Your task to perform on an android device: Show me the best rated 4K TV on Walmart. Image 0: 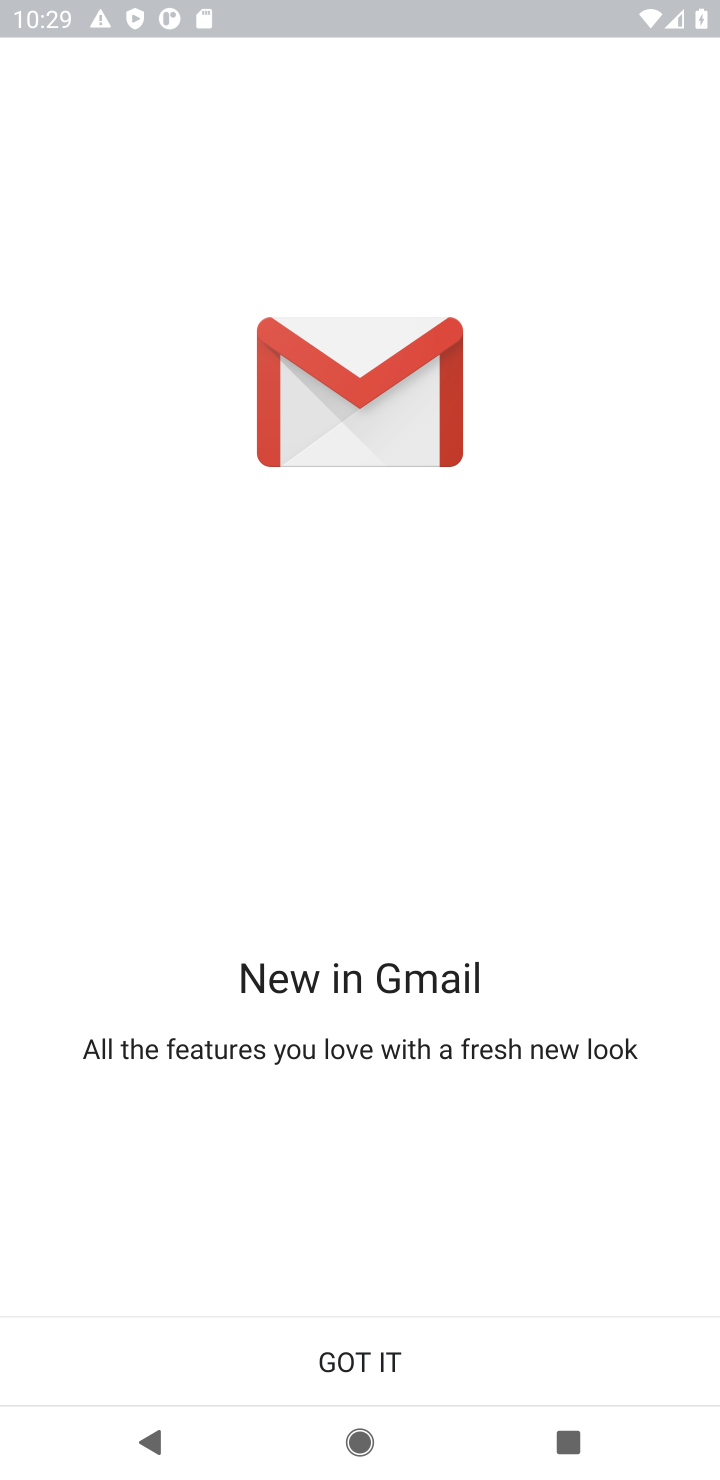
Step 0: press home button
Your task to perform on an android device: Show me the best rated 4K TV on Walmart. Image 1: 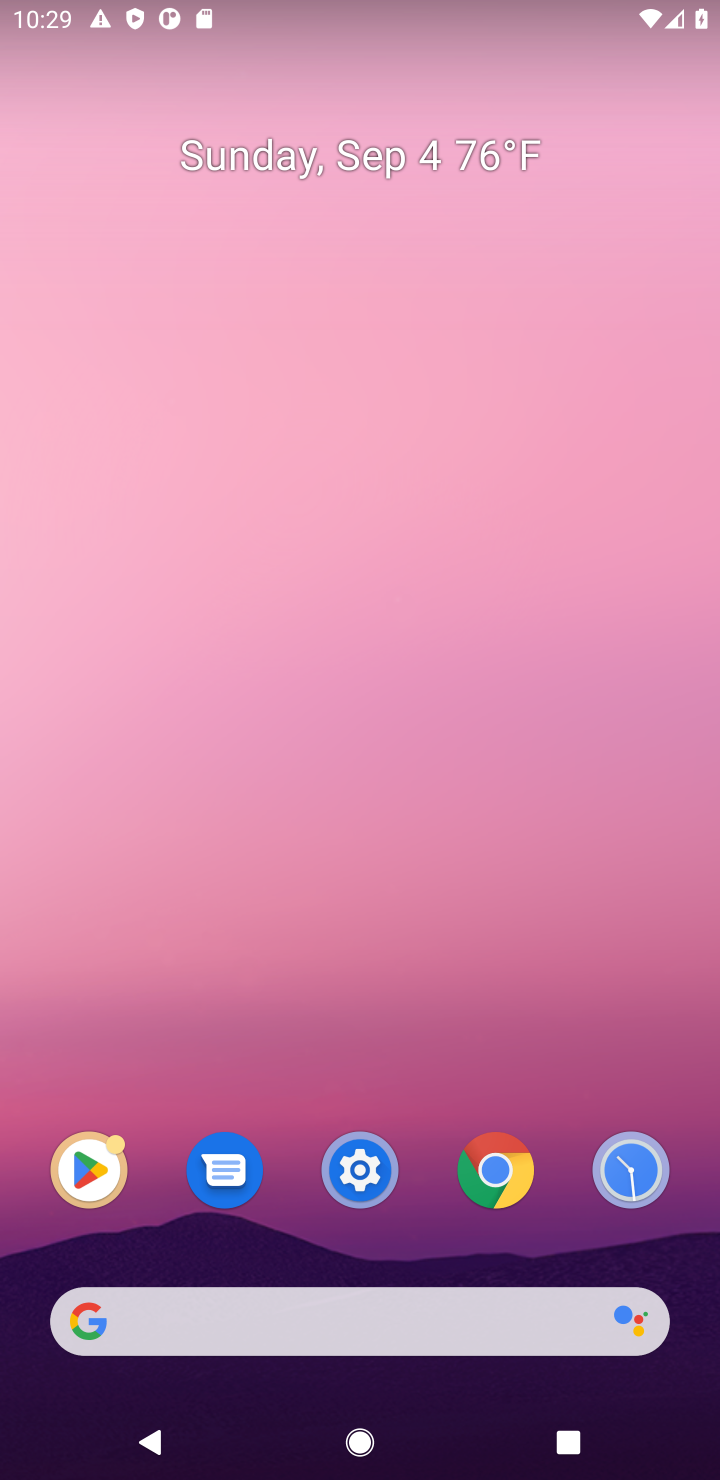
Step 1: click (454, 1329)
Your task to perform on an android device: Show me the best rated 4K TV on Walmart. Image 2: 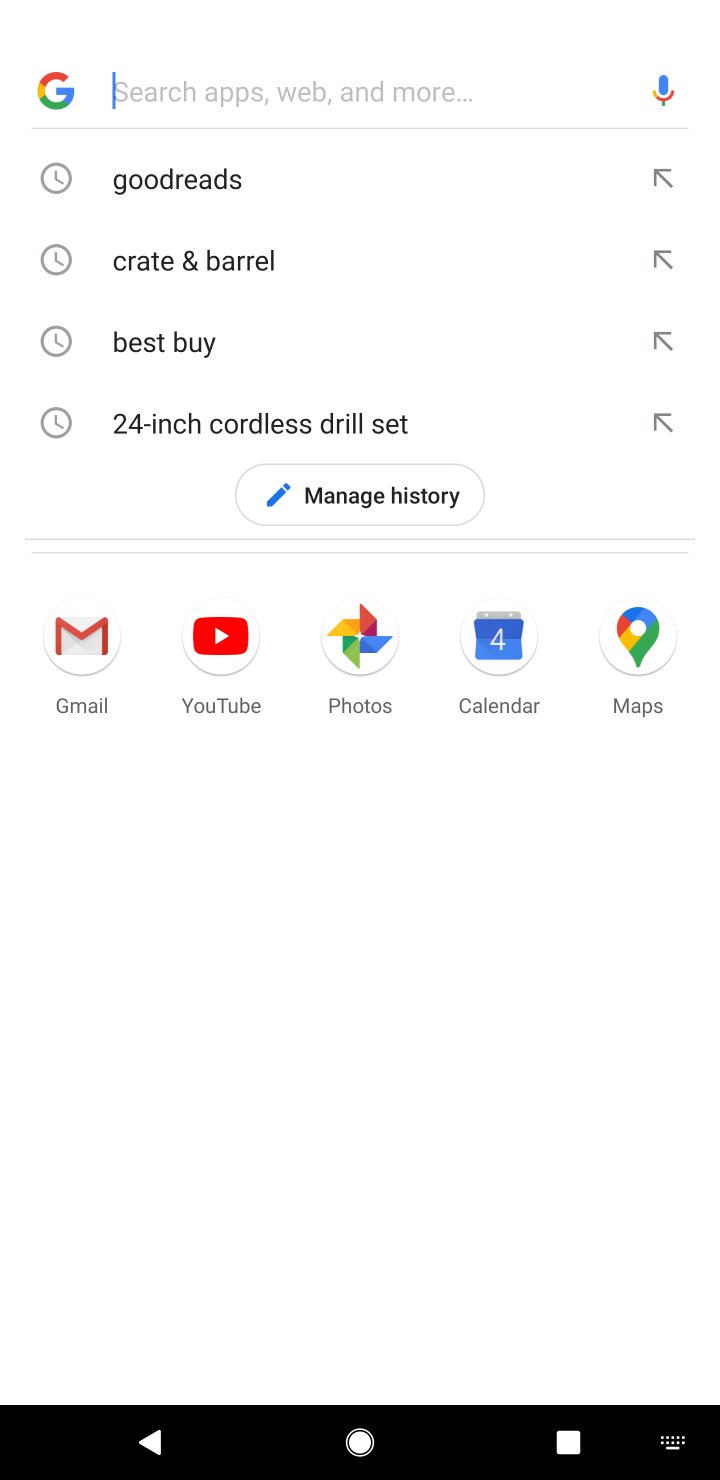
Step 2: type "Walmart"
Your task to perform on an android device: Show me the best rated 4K TV on Walmart. Image 3: 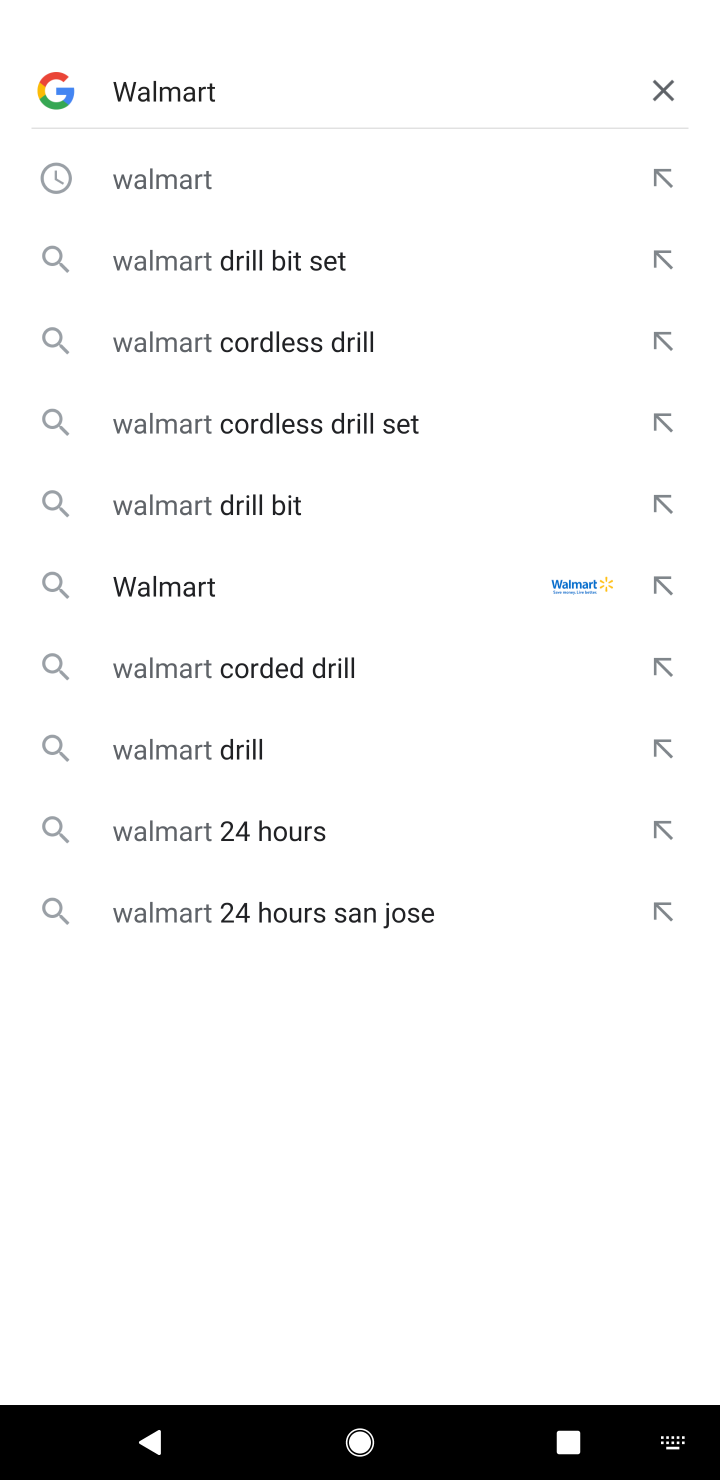
Step 3: type ""
Your task to perform on an android device: Show me the best rated 4K TV on Walmart. Image 4: 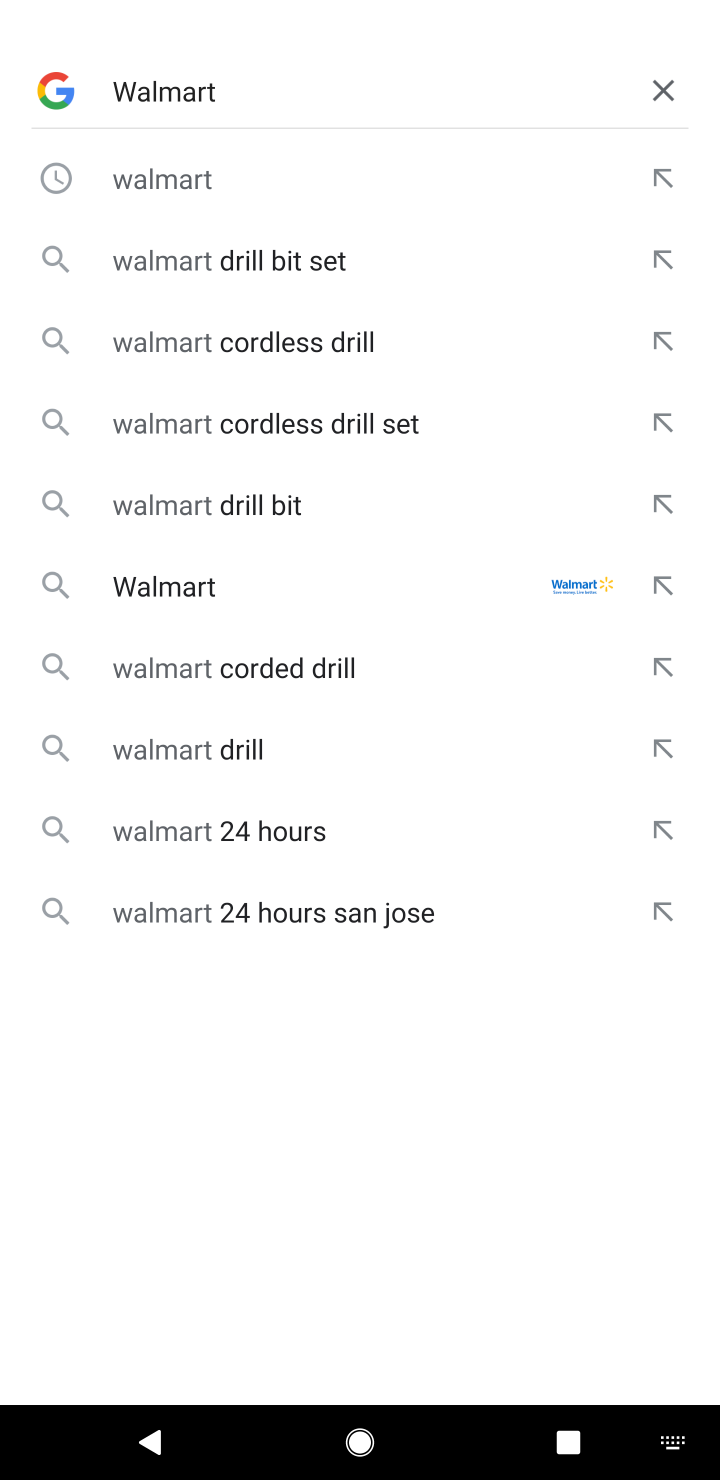
Step 4: click (159, 176)
Your task to perform on an android device: Show me the best rated 4K TV on Walmart. Image 5: 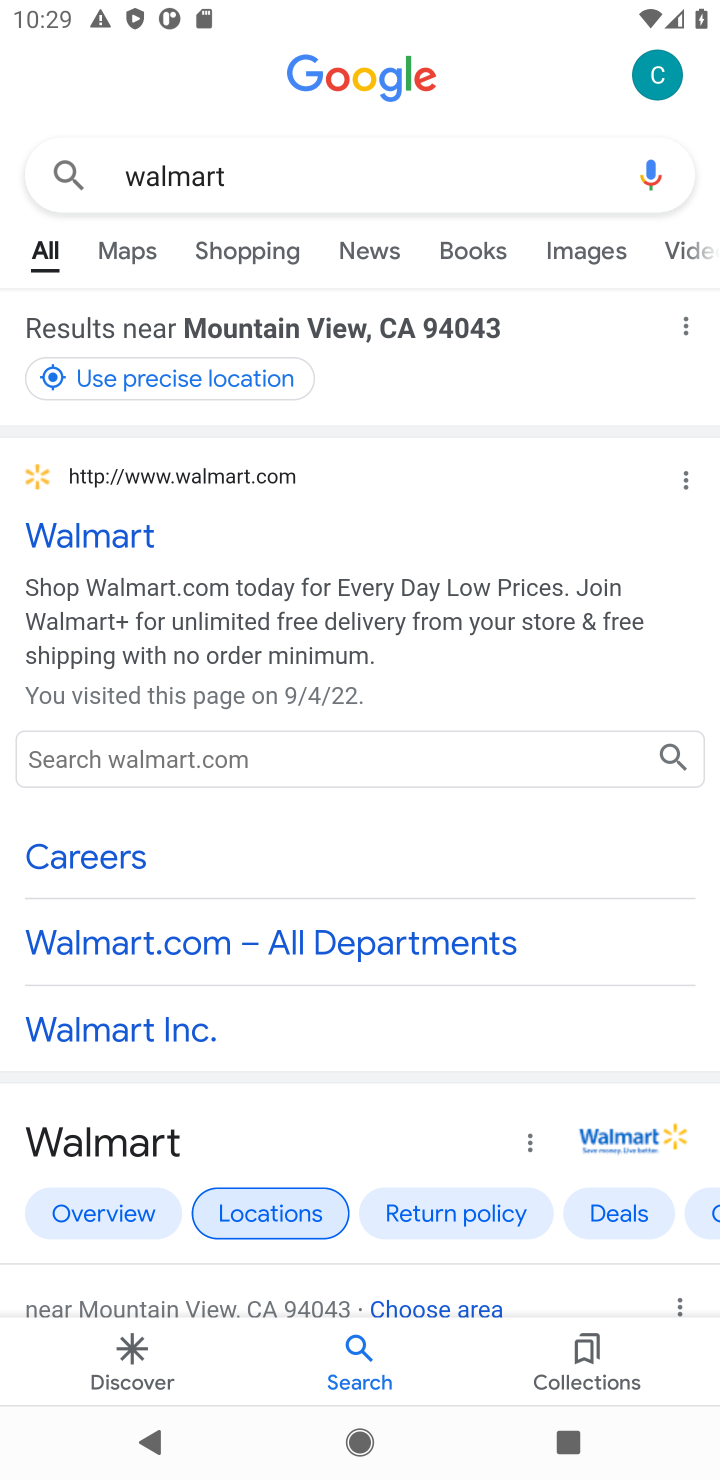
Step 5: click (89, 508)
Your task to perform on an android device: Show me the best rated 4K TV on Walmart. Image 6: 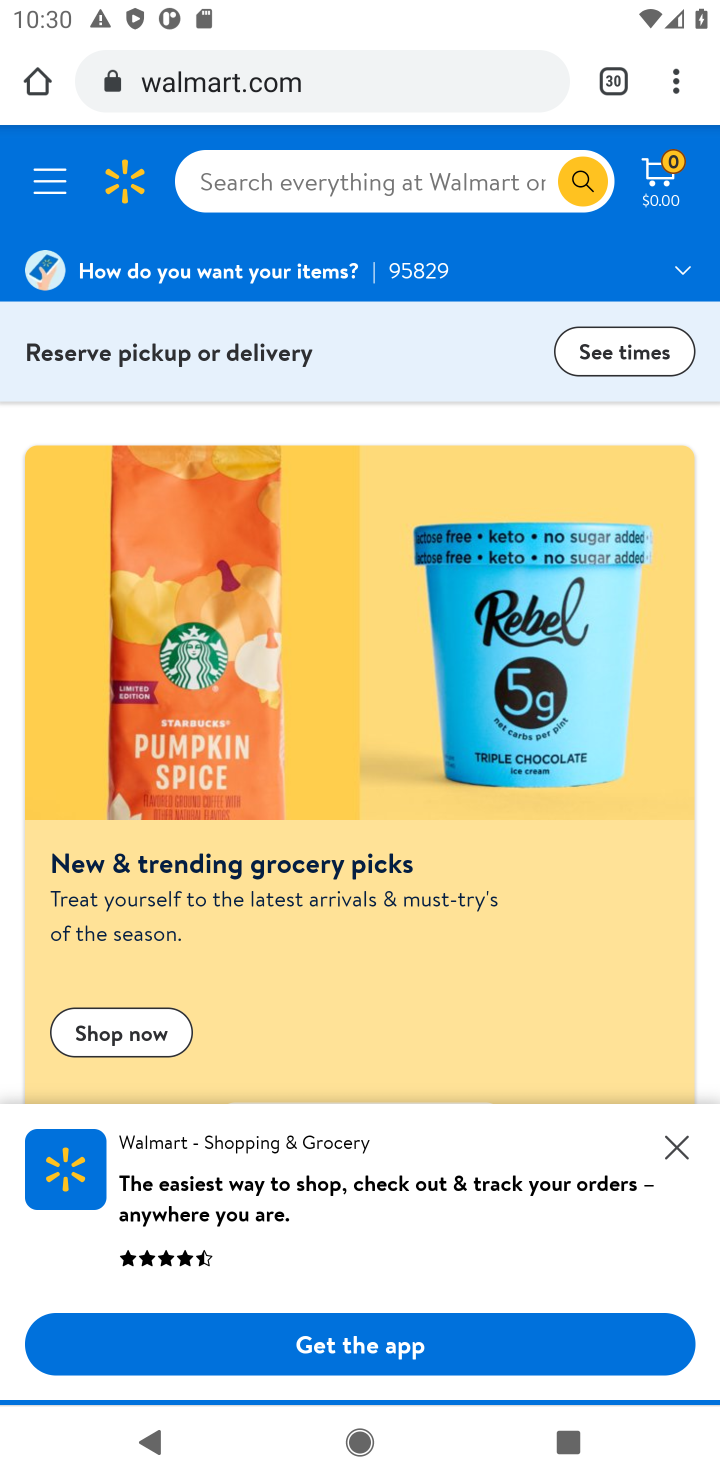
Step 6: click (313, 187)
Your task to perform on an android device: Show me the best rated 4K TV on Walmart. Image 7: 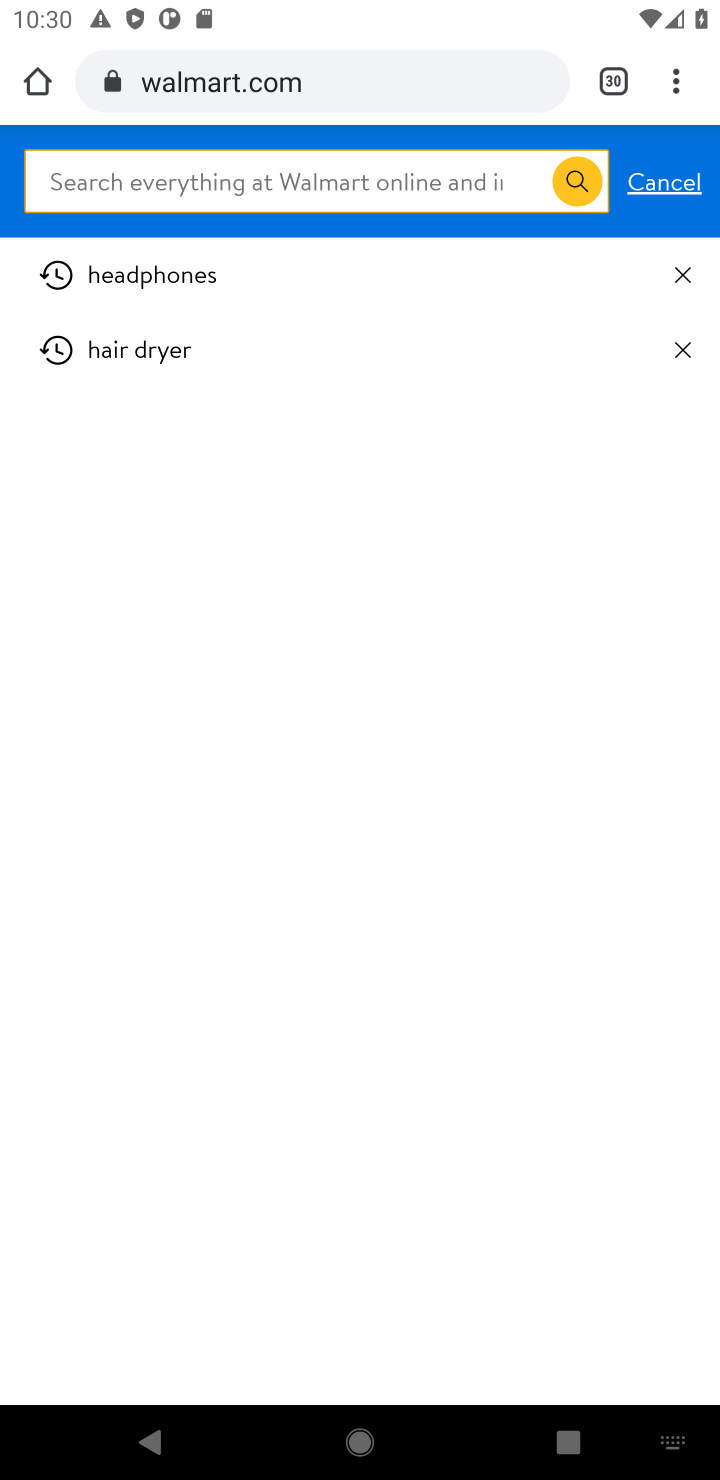
Step 7: type "4K TV"
Your task to perform on an android device: Show me the best rated 4K TV on Walmart. Image 8: 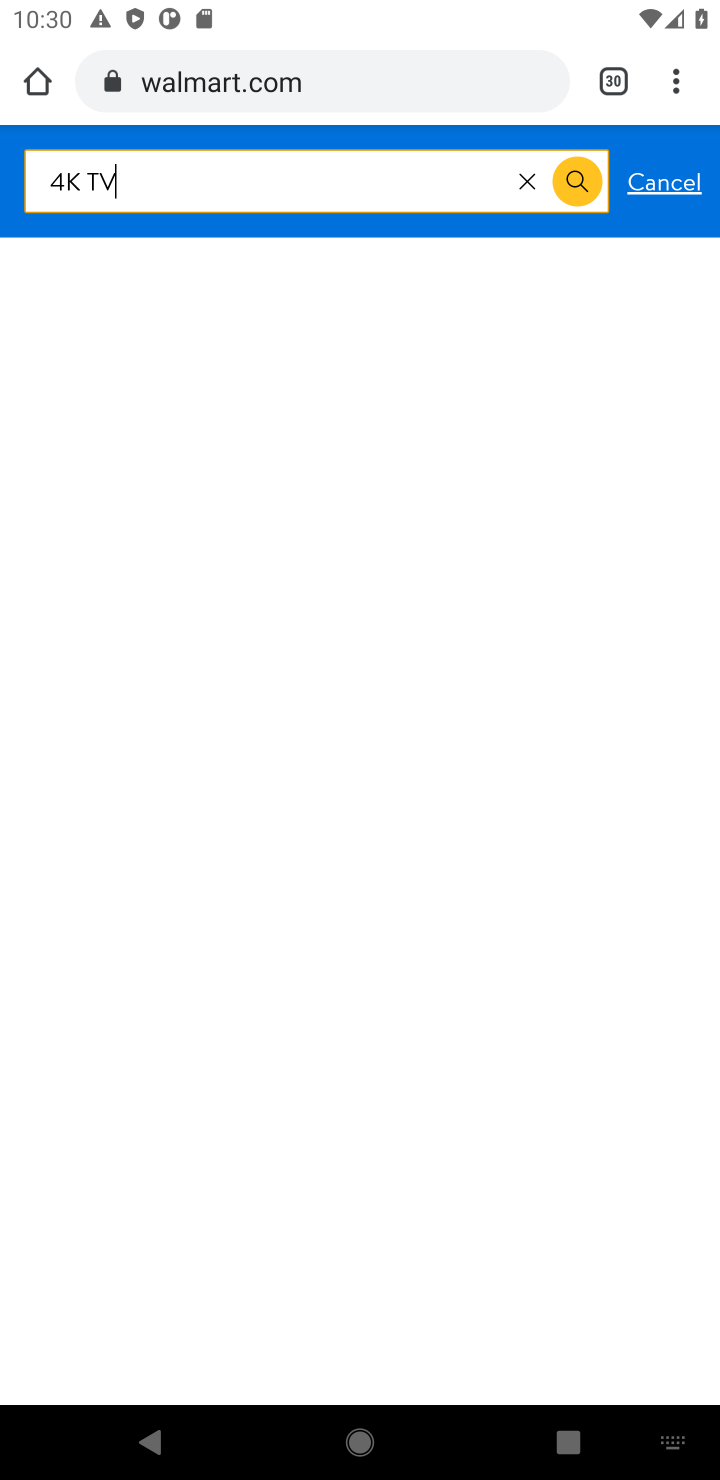
Step 8: type ""
Your task to perform on an android device: Show me the best rated 4K TV on Walmart. Image 9: 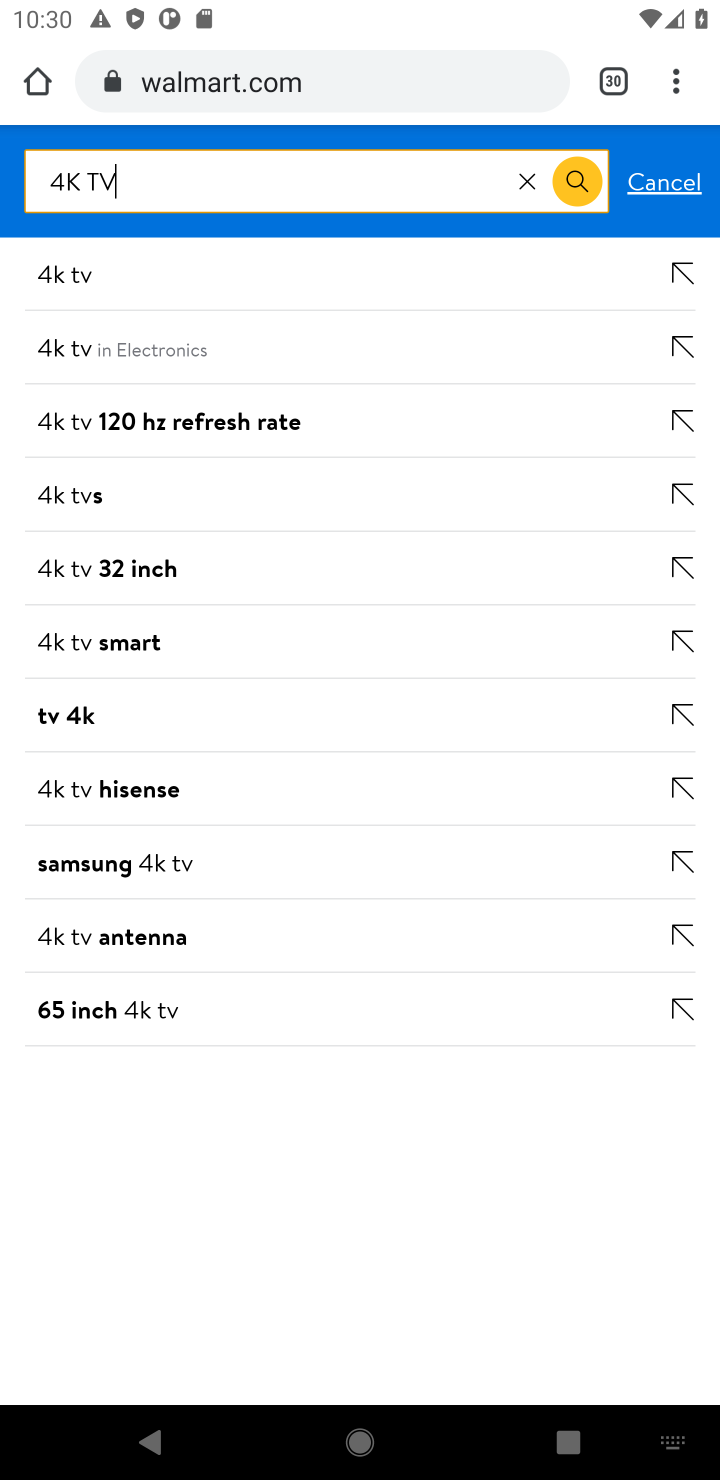
Step 9: click (123, 260)
Your task to perform on an android device: Show me the best rated 4K TV on Walmart. Image 10: 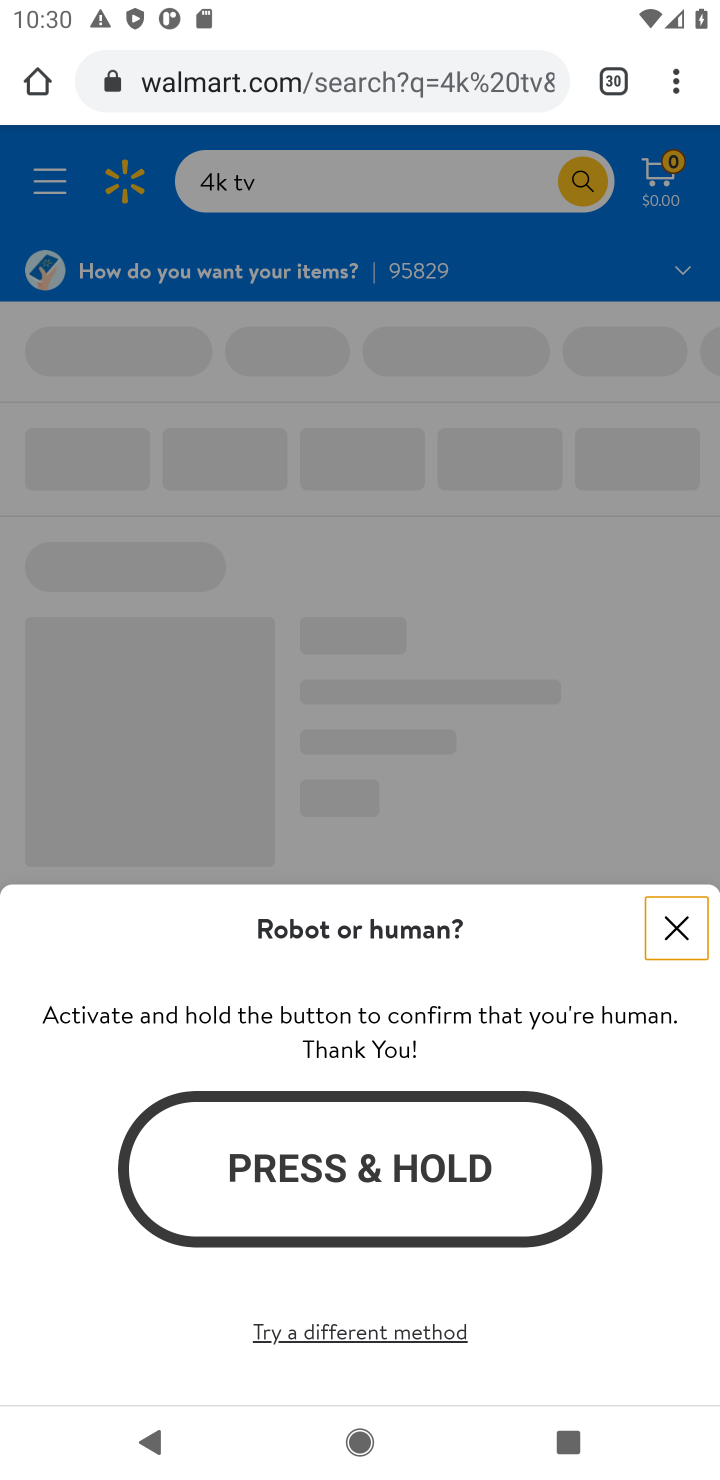
Step 10: click (693, 935)
Your task to perform on an android device: Show me the best rated 4K TV on Walmart. Image 11: 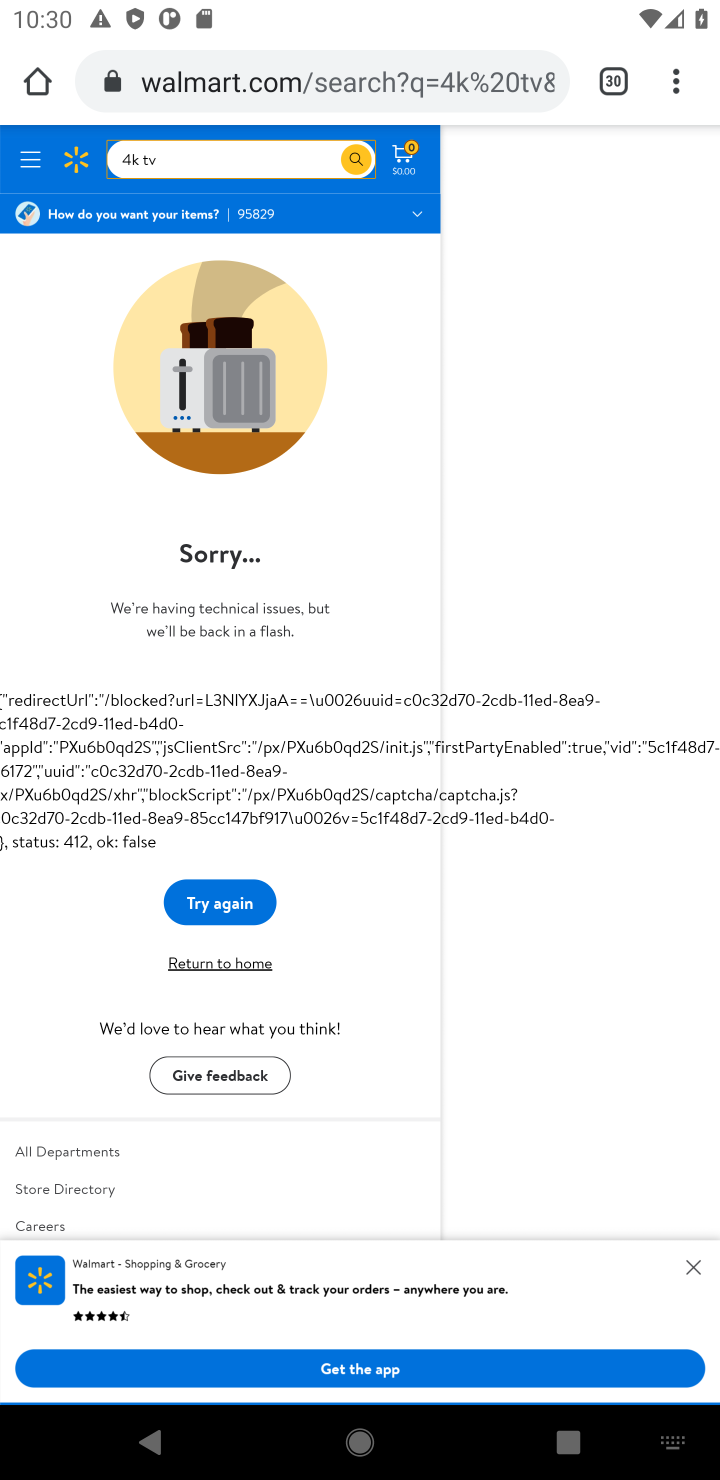
Step 11: click (346, 157)
Your task to perform on an android device: Show me the best rated 4K TV on Walmart. Image 12: 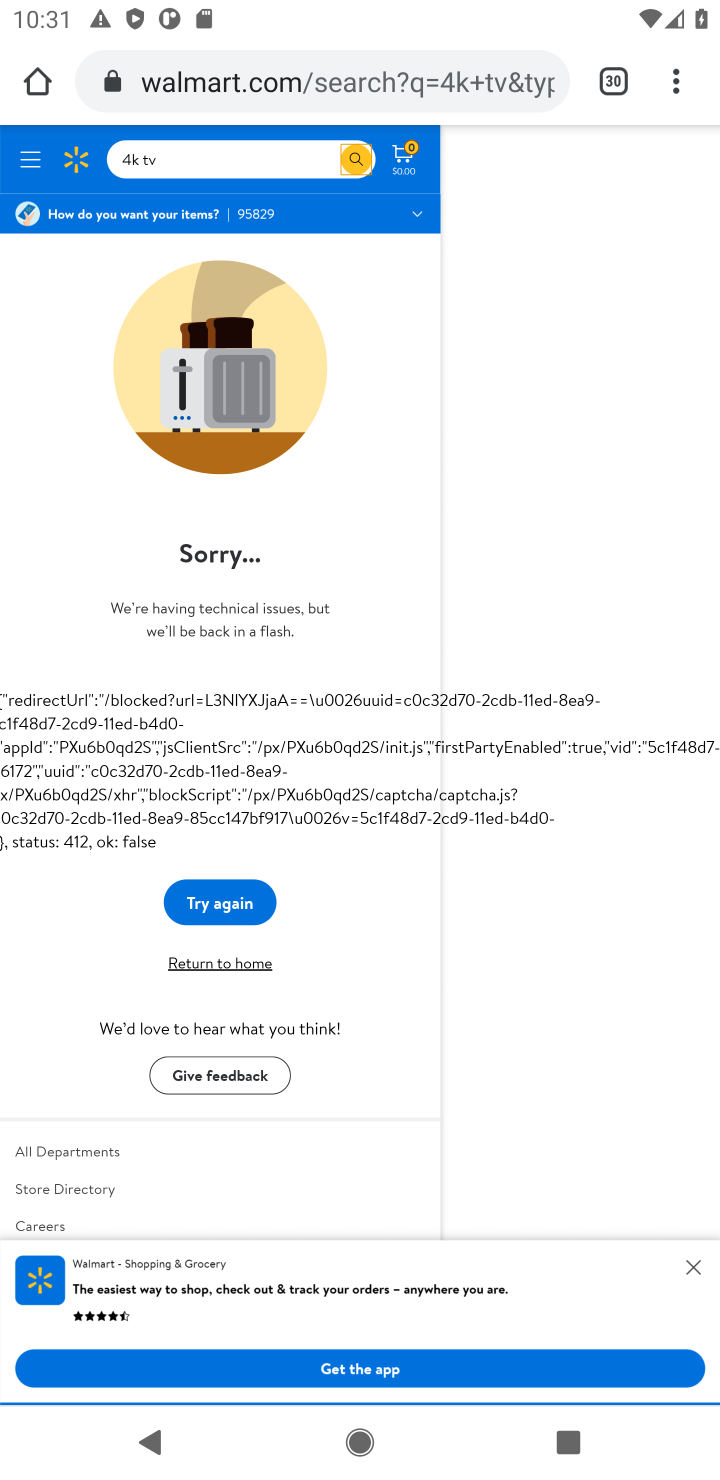
Step 12: task complete